Your task to perform on an android device: Go to battery settings Image 0: 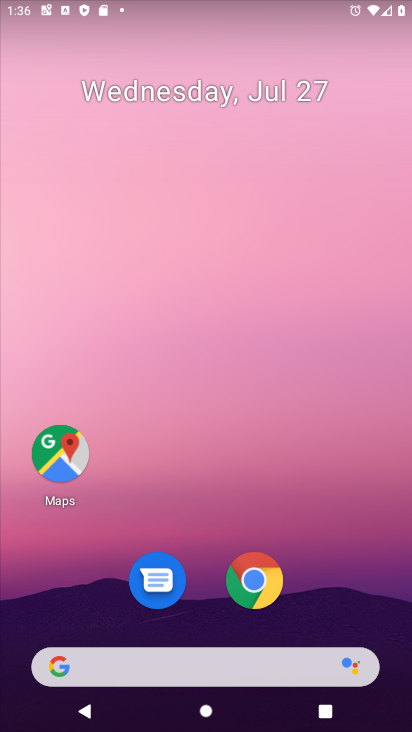
Step 0: drag from (257, 636) to (198, 102)
Your task to perform on an android device: Go to battery settings Image 1: 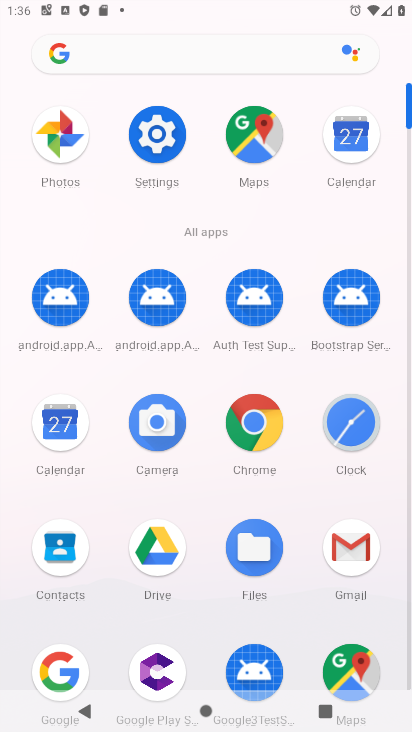
Step 1: click (175, 115)
Your task to perform on an android device: Go to battery settings Image 2: 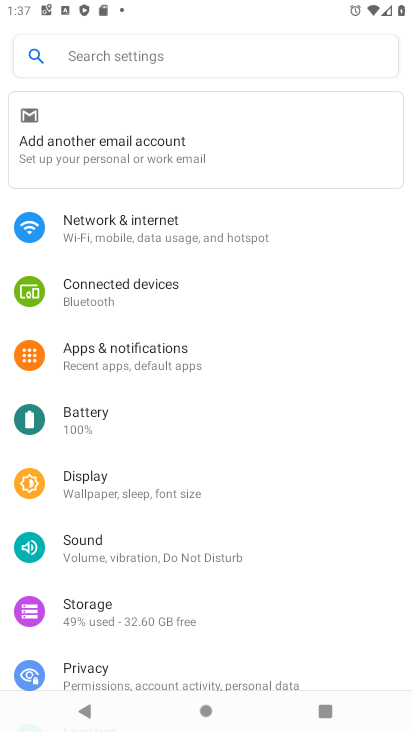
Step 2: click (128, 419)
Your task to perform on an android device: Go to battery settings Image 3: 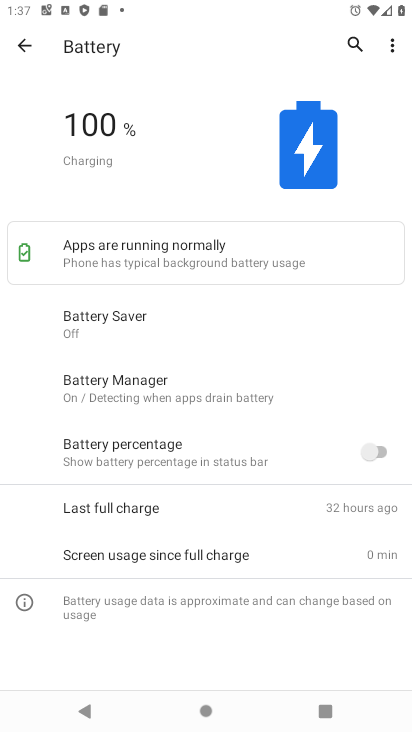
Step 3: task complete